Your task to perform on an android device: Open settings Image 0: 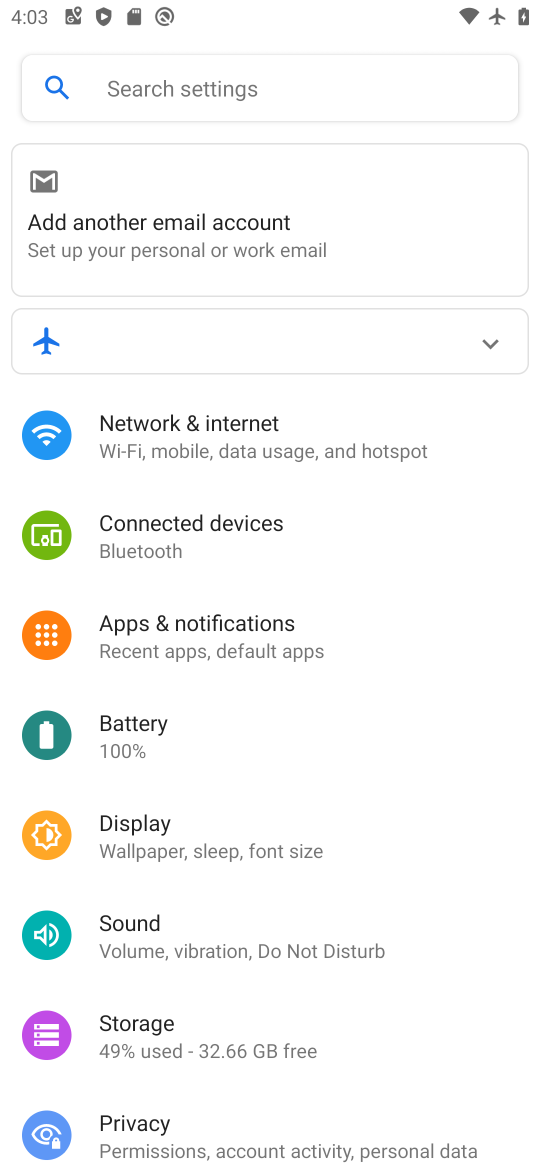
Step 0: press home button
Your task to perform on an android device: Open settings Image 1: 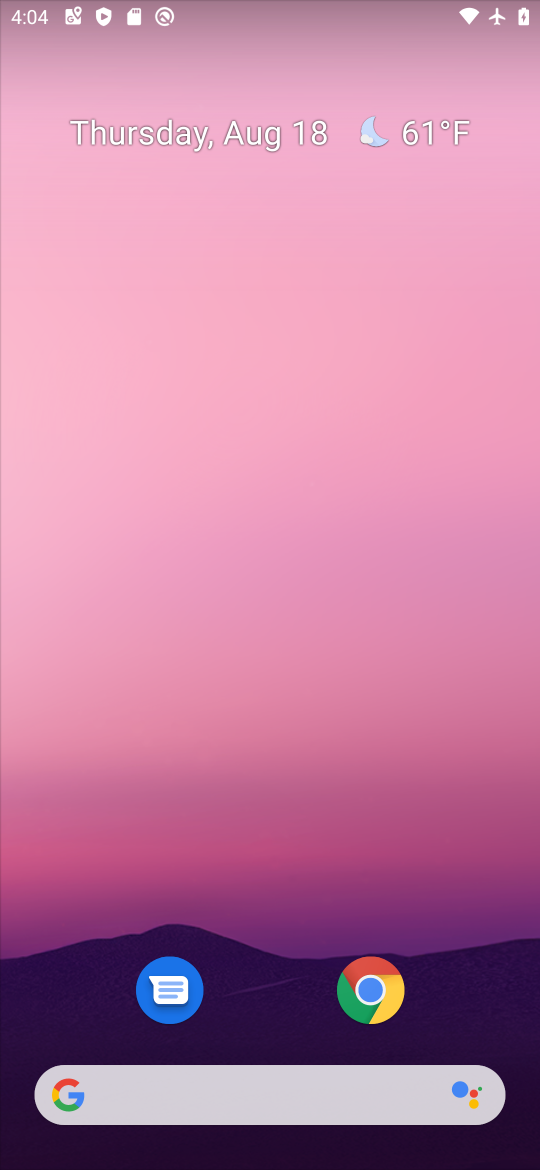
Step 1: drag from (242, 932) to (238, 150)
Your task to perform on an android device: Open settings Image 2: 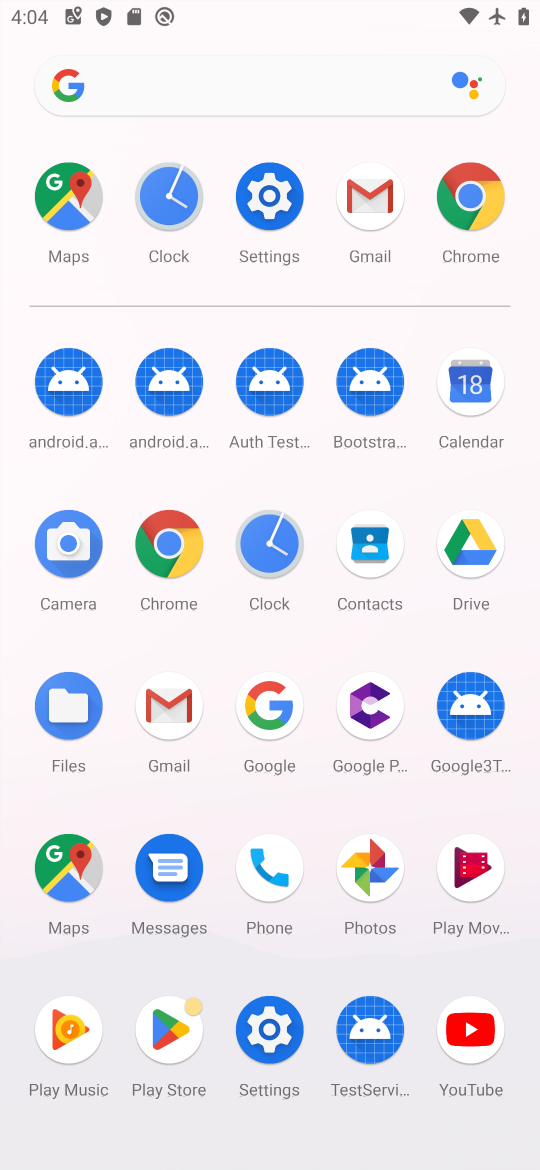
Step 2: click (260, 1042)
Your task to perform on an android device: Open settings Image 3: 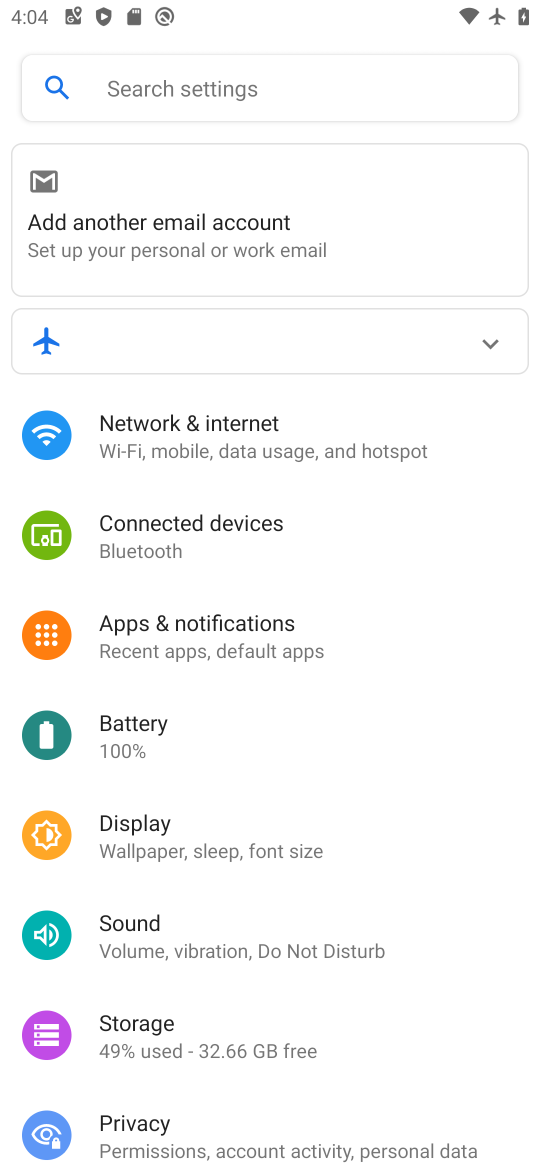
Step 3: task complete